Your task to perform on an android device: clear all cookies in the chrome app Image 0: 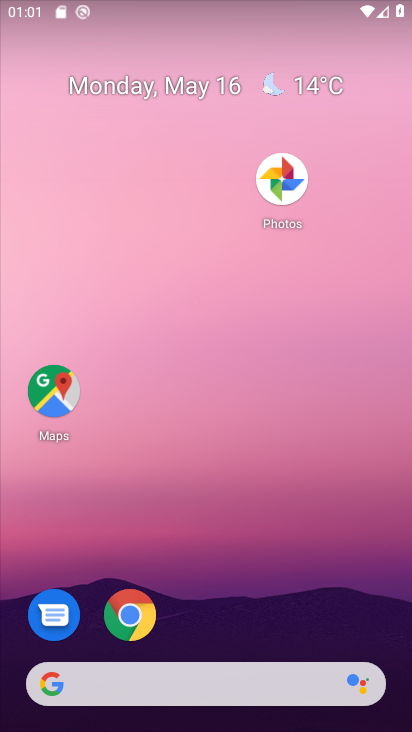
Step 0: drag from (324, 519) to (329, 156)
Your task to perform on an android device: clear all cookies in the chrome app Image 1: 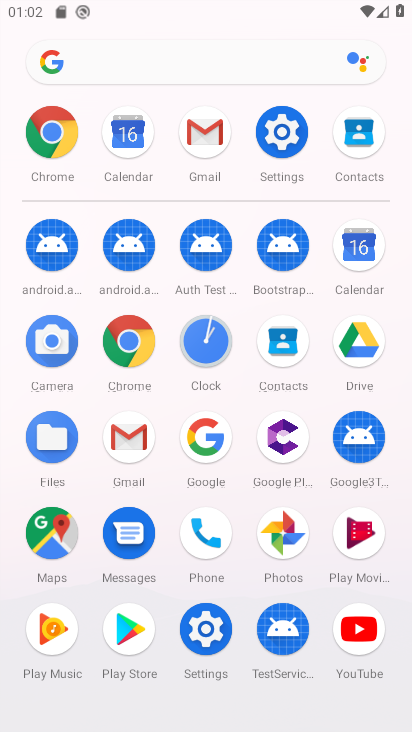
Step 1: click (116, 350)
Your task to perform on an android device: clear all cookies in the chrome app Image 2: 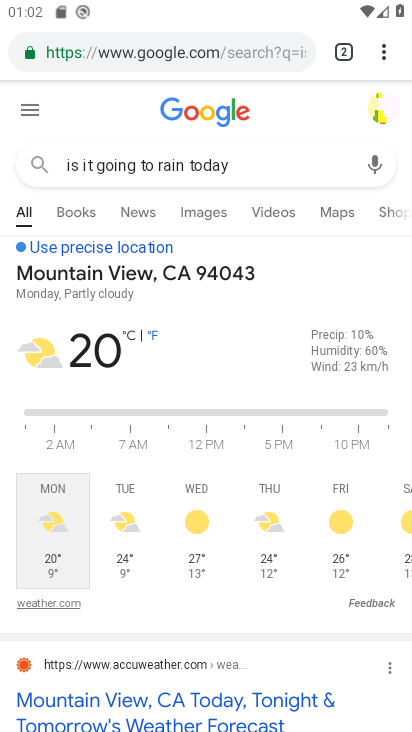
Step 2: drag from (388, 62) to (252, 363)
Your task to perform on an android device: clear all cookies in the chrome app Image 3: 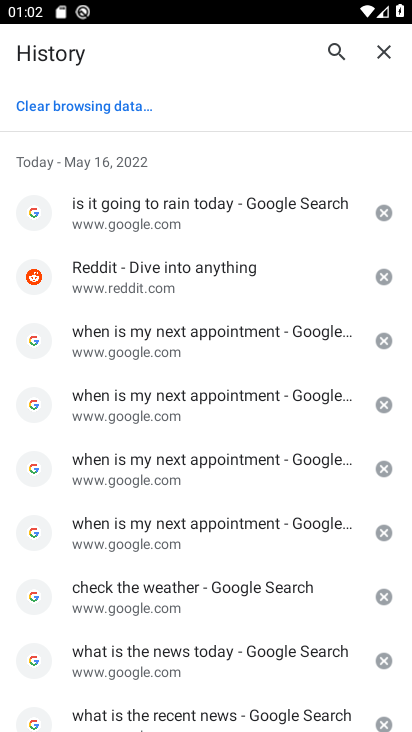
Step 3: click (91, 110)
Your task to perform on an android device: clear all cookies in the chrome app Image 4: 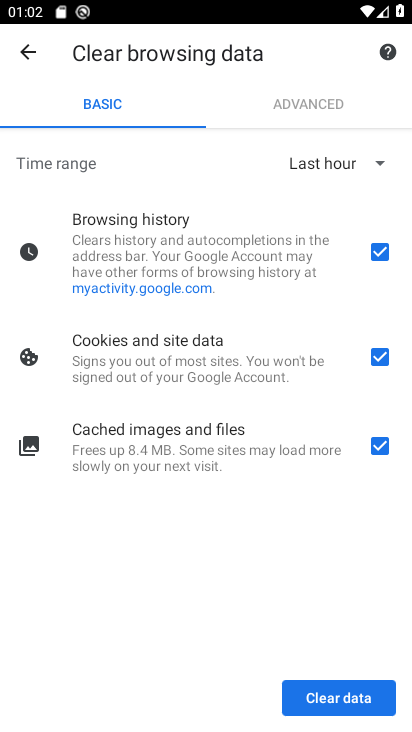
Step 4: click (373, 252)
Your task to perform on an android device: clear all cookies in the chrome app Image 5: 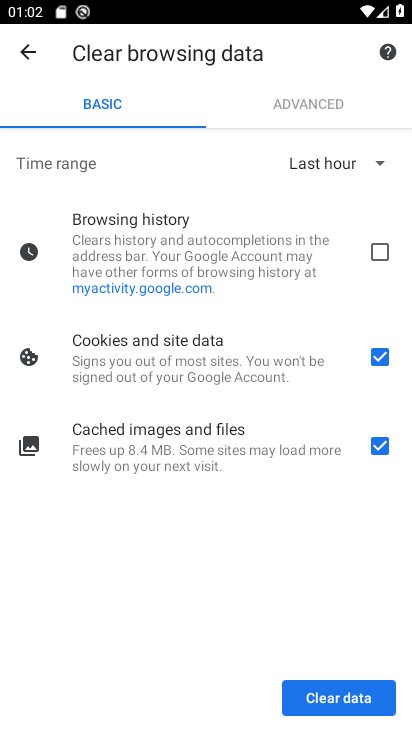
Step 5: click (382, 449)
Your task to perform on an android device: clear all cookies in the chrome app Image 6: 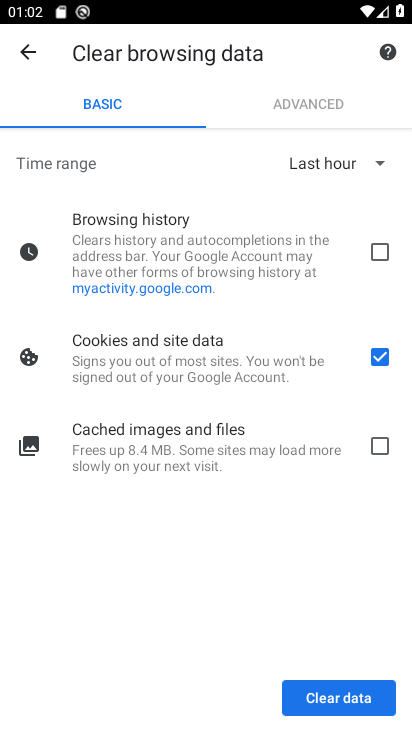
Step 6: click (364, 693)
Your task to perform on an android device: clear all cookies in the chrome app Image 7: 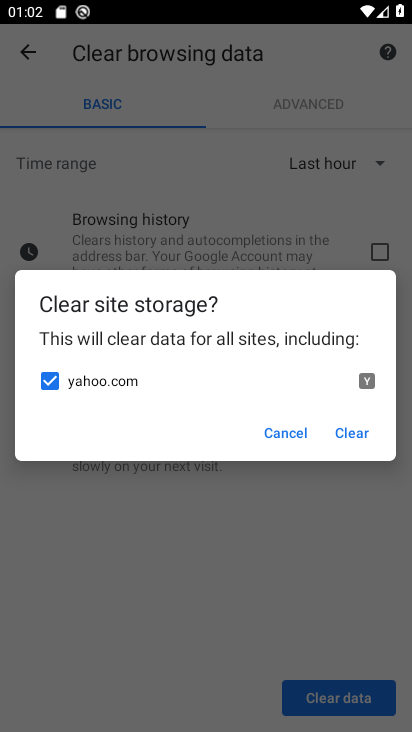
Step 7: click (350, 431)
Your task to perform on an android device: clear all cookies in the chrome app Image 8: 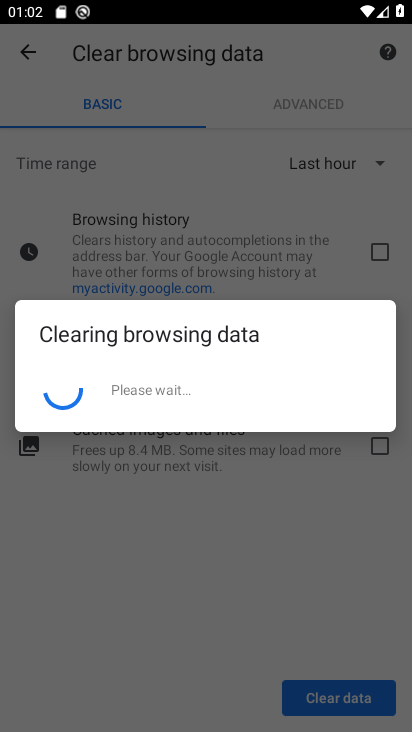
Step 8: task complete